Your task to perform on an android device: Open Maps and search for coffee Image 0: 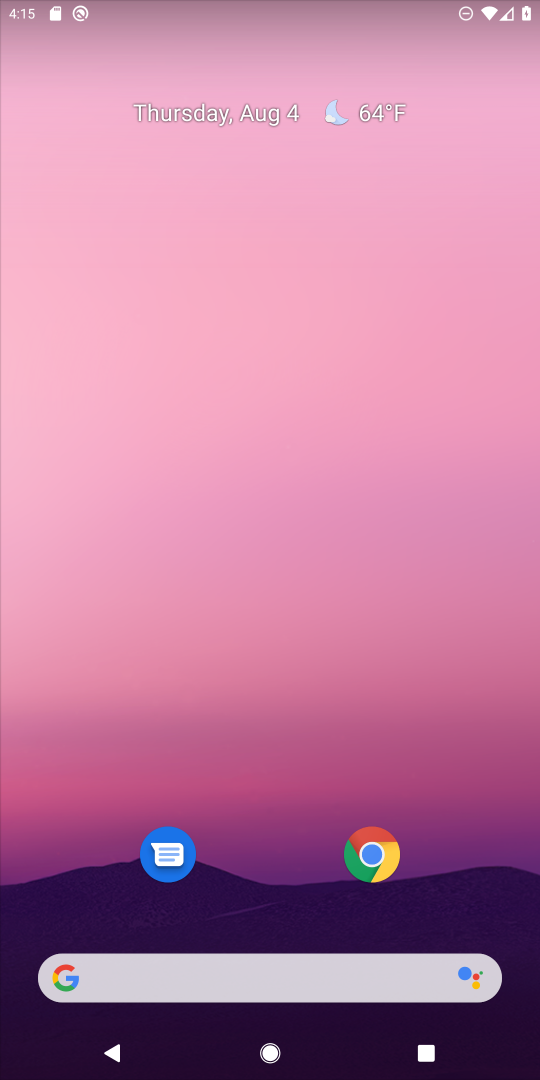
Step 0: drag from (258, 736) to (282, 299)
Your task to perform on an android device: Open Maps and search for coffee Image 1: 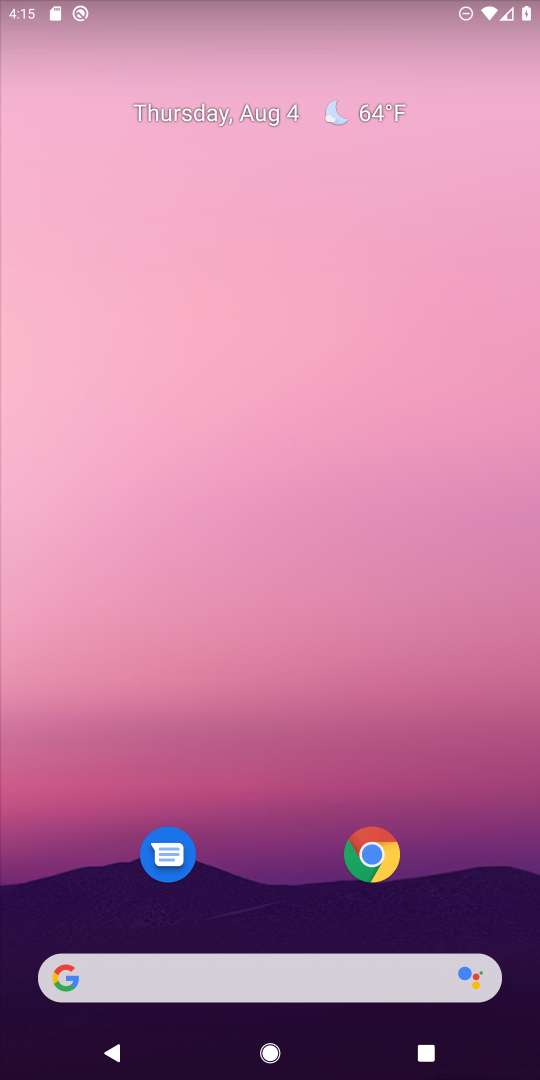
Step 1: drag from (313, 548) to (331, 217)
Your task to perform on an android device: Open Maps and search for coffee Image 2: 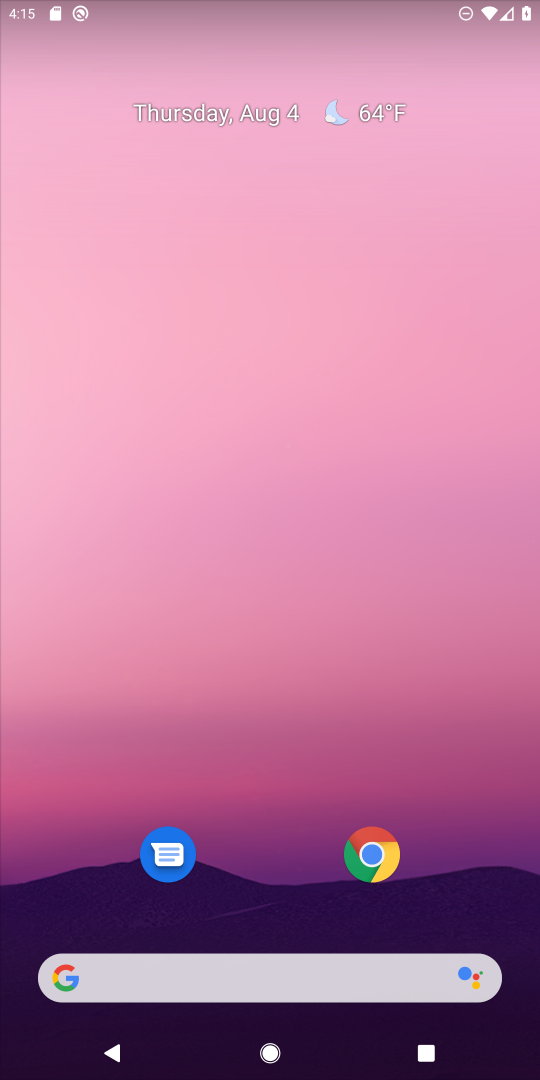
Step 2: drag from (286, 853) to (327, 221)
Your task to perform on an android device: Open Maps and search for coffee Image 3: 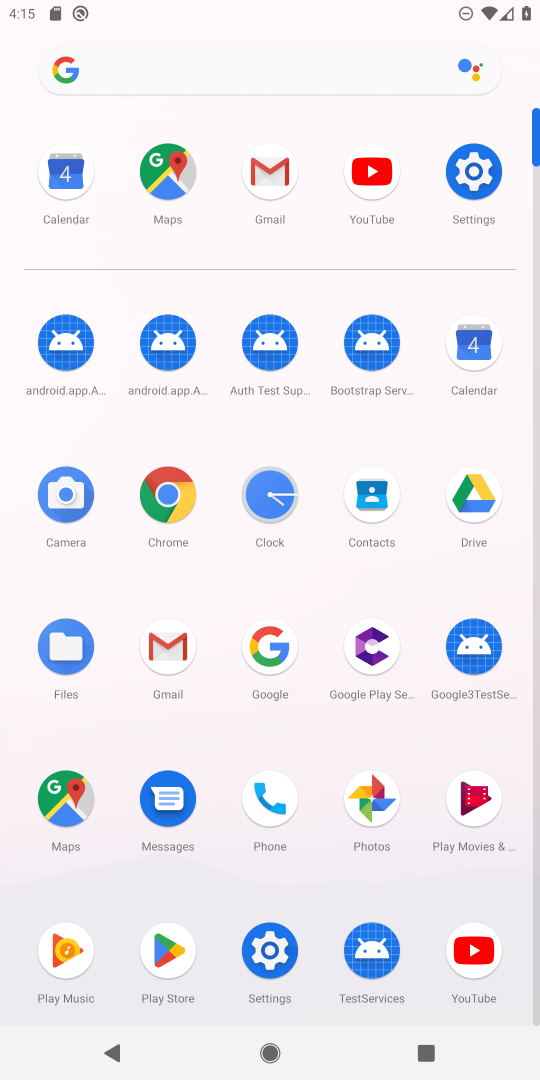
Step 3: click (172, 192)
Your task to perform on an android device: Open Maps and search for coffee Image 4: 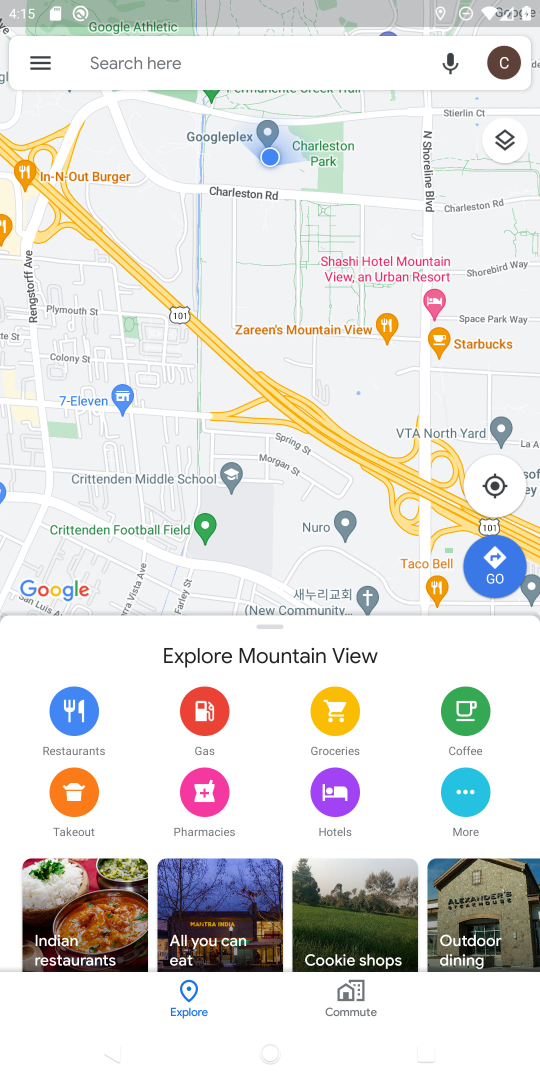
Step 4: task complete